Your task to perform on an android device: Open privacy settings Image 0: 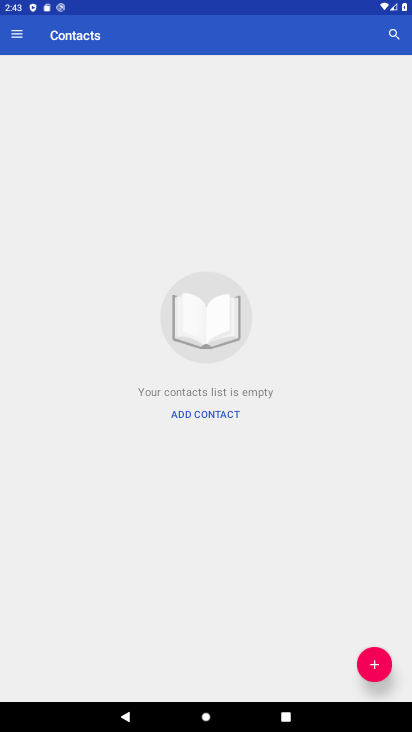
Step 0: press home button
Your task to perform on an android device: Open privacy settings Image 1: 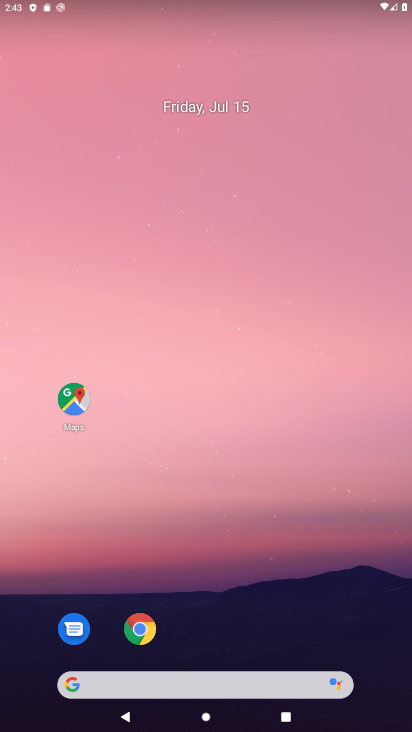
Step 1: drag from (208, 651) to (143, 36)
Your task to perform on an android device: Open privacy settings Image 2: 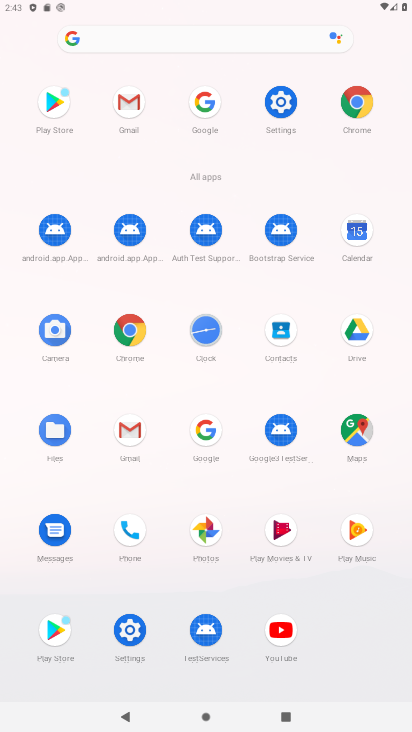
Step 2: click (268, 101)
Your task to perform on an android device: Open privacy settings Image 3: 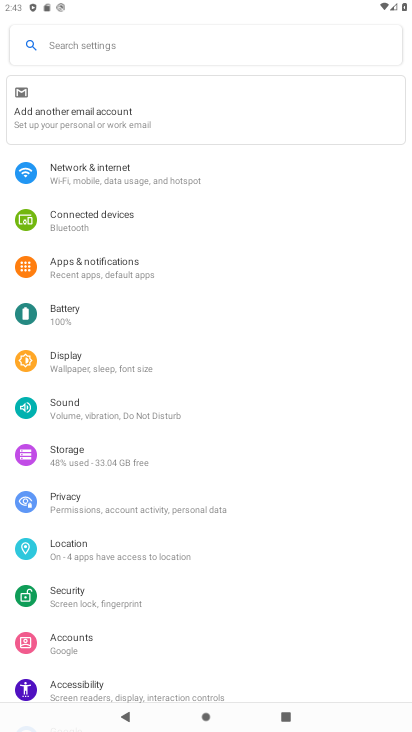
Step 3: click (79, 491)
Your task to perform on an android device: Open privacy settings Image 4: 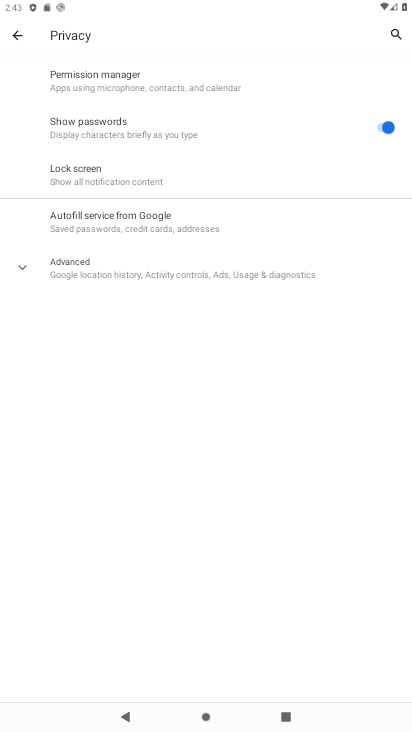
Step 4: click (119, 257)
Your task to perform on an android device: Open privacy settings Image 5: 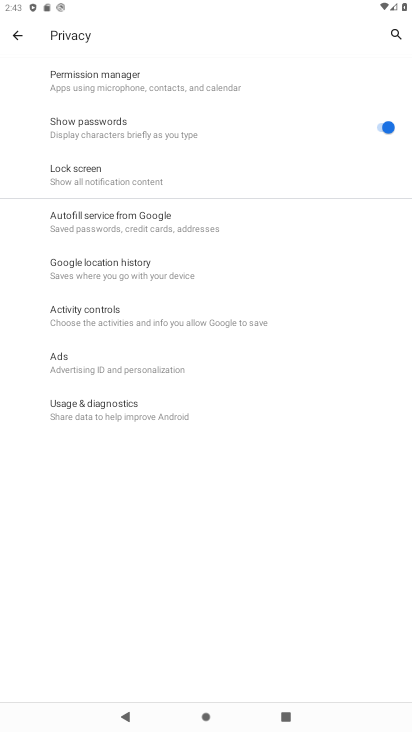
Step 5: task complete